Your task to perform on an android device: Open the phone app and click the voicemail tab. Image 0: 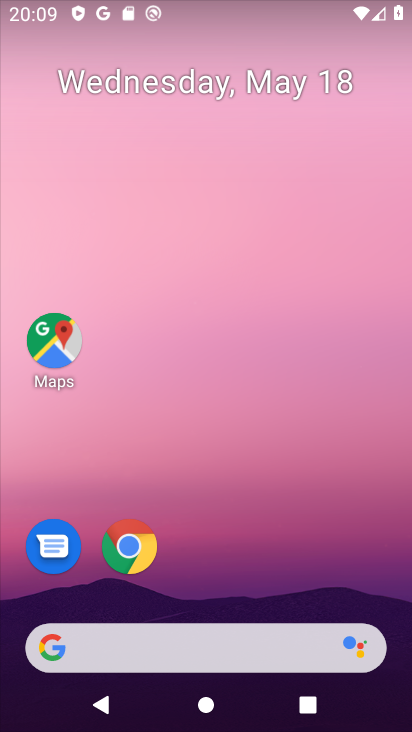
Step 0: drag from (284, 567) to (259, 52)
Your task to perform on an android device: Open the phone app and click the voicemail tab. Image 1: 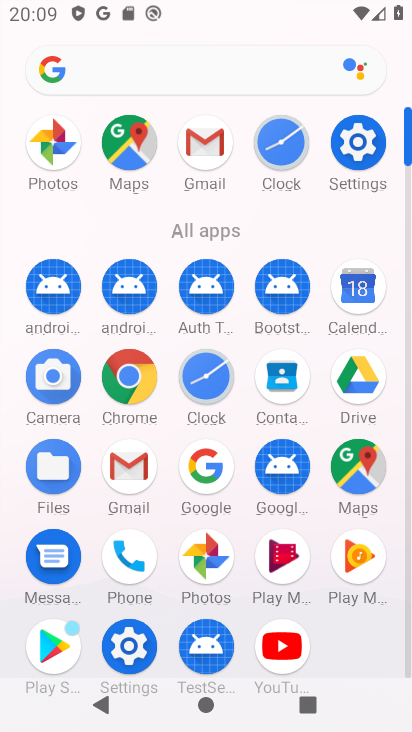
Step 1: click (139, 564)
Your task to perform on an android device: Open the phone app and click the voicemail tab. Image 2: 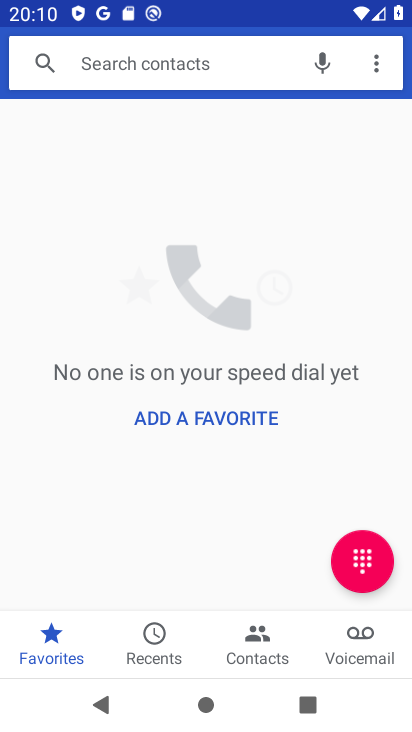
Step 2: click (361, 652)
Your task to perform on an android device: Open the phone app and click the voicemail tab. Image 3: 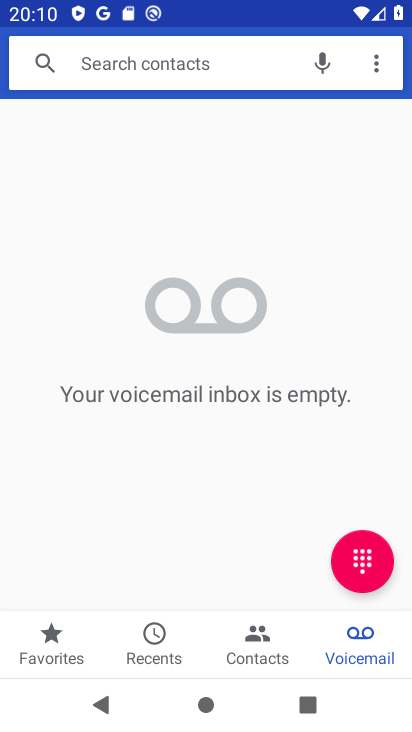
Step 3: task complete